Your task to perform on an android device: Open Youtube and go to "Your channel" Image 0: 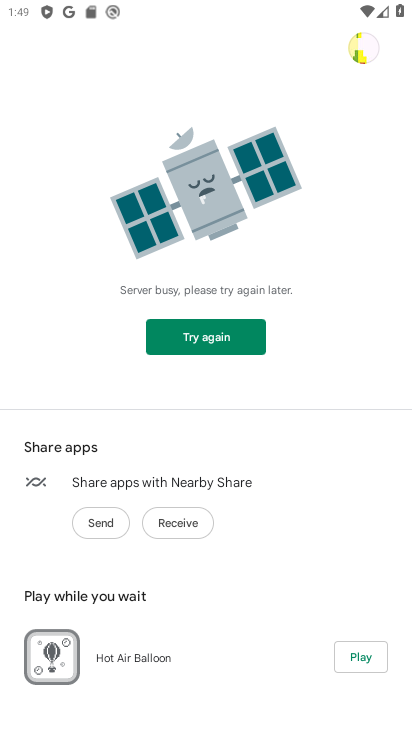
Step 0: press home button
Your task to perform on an android device: Open Youtube and go to "Your channel" Image 1: 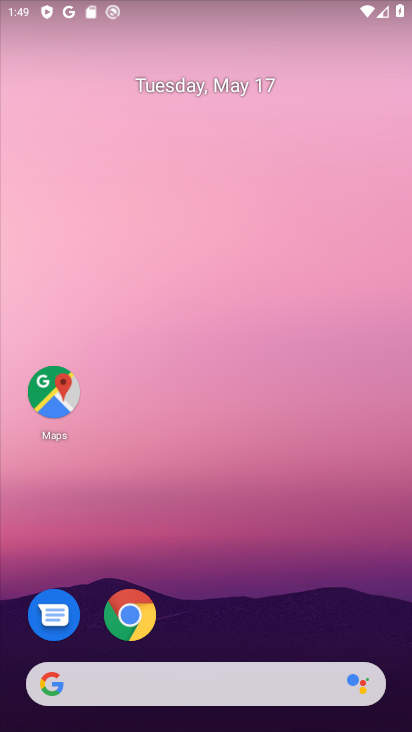
Step 1: drag from (310, 557) to (222, 61)
Your task to perform on an android device: Open Youtube and go to "Your channel" Image 2: 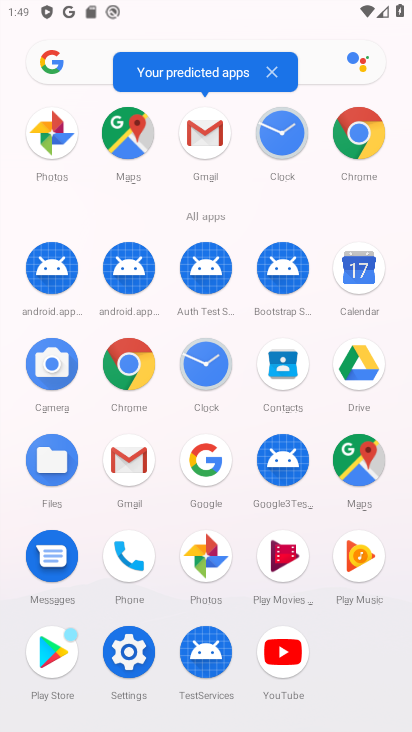
Step 2: click (275, 687)
Your task to perform on an android device: Open Youtube and go to "Your channel" Image 3: 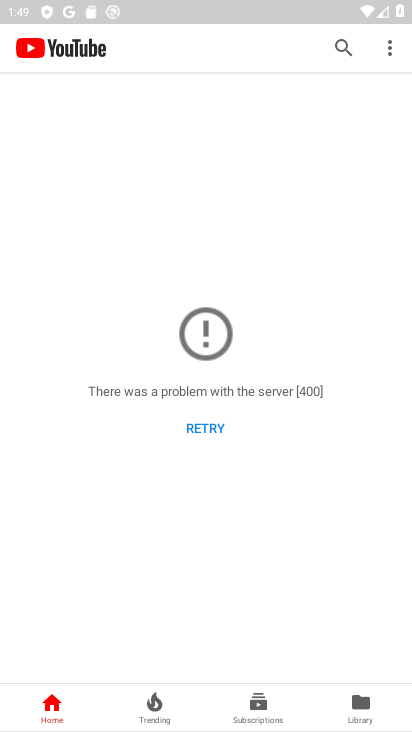
Step 3: click (249, 708)
Your task to perform on an android device: Open Youtube and go to "Your channel" Image 4: 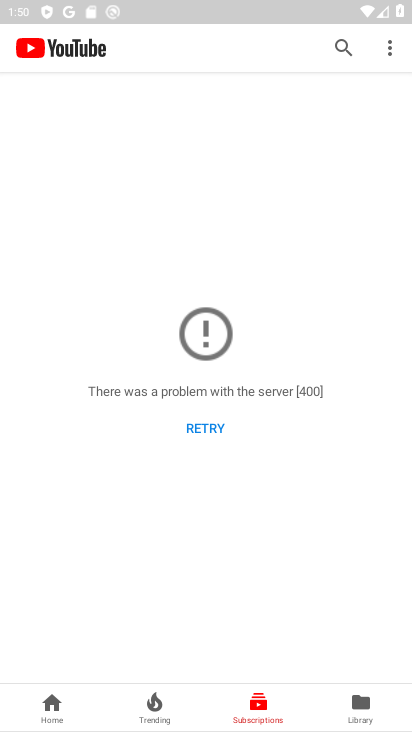
Step 4: click (44, 692)
Your task to perform on an android device: Open Youtube and go to "Your channel" Image 5: 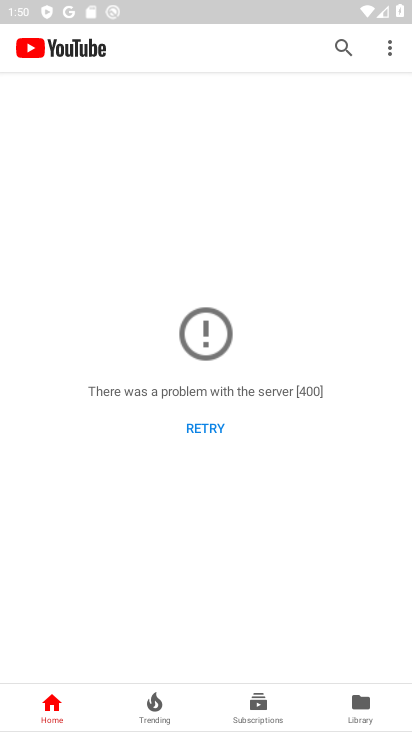
Step 5: click (54, 708)
Your task to perform on an android device: Open Youtube and go to "Your channel" Image 6: 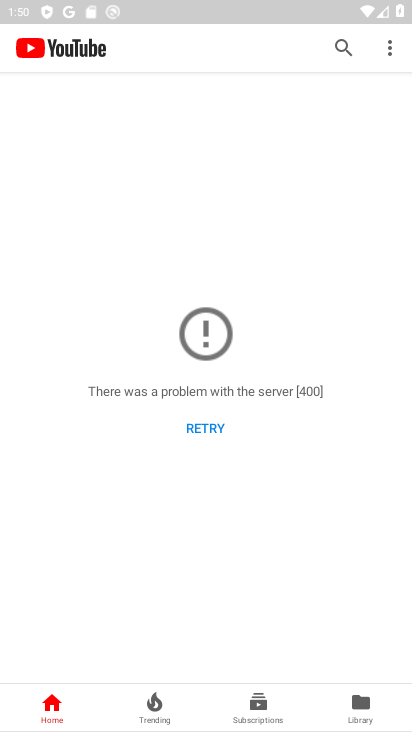
Step 6: task complete